Your task to perform on an android device: Go to Google Image 0: 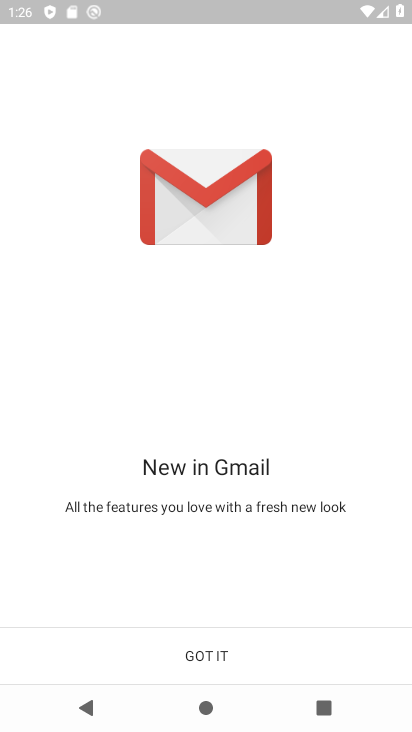
Step 0: press home button
Your task to perform on an android device: Go to Google Image 1: 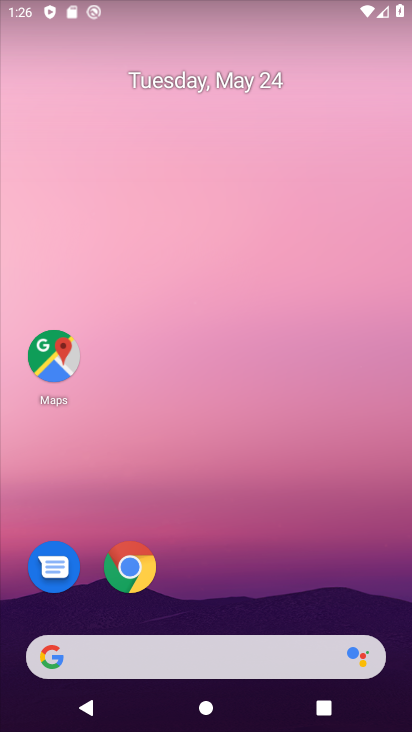
Step 1: drag from (198, 577) to (252, 257)
Your task to perform on an android device: Go to Google Image 2: 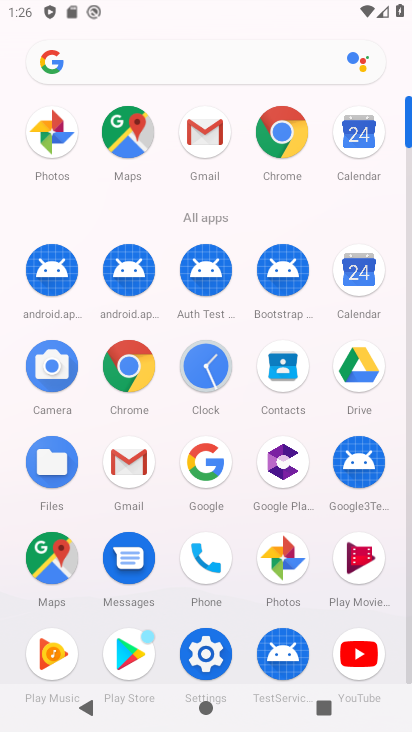
Step 2: click (206, 470)
Your task to perform on an android device: Go to Google Image 3: 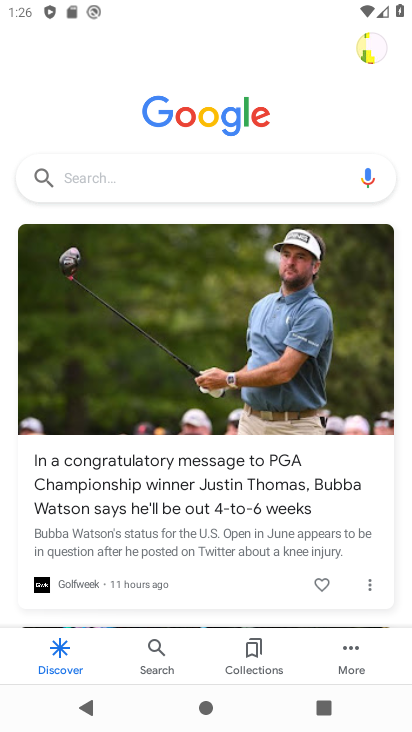
Step 3: task complete